Your task to perform on an android device: Open ESPN.com Image 0: 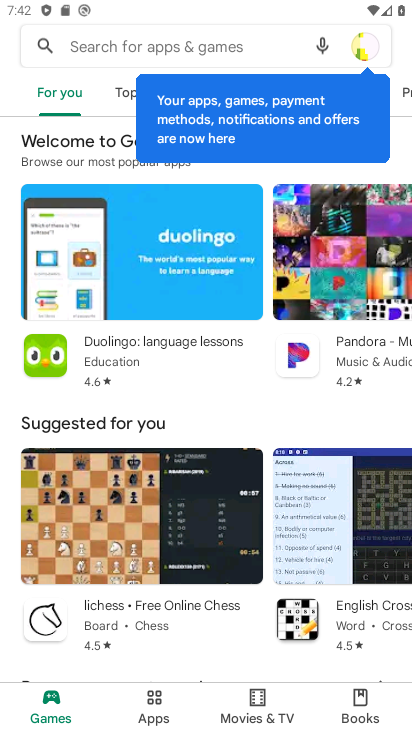
Step 0: press home button
Your task to perform on an android device: Open ESPN.com Image 1: 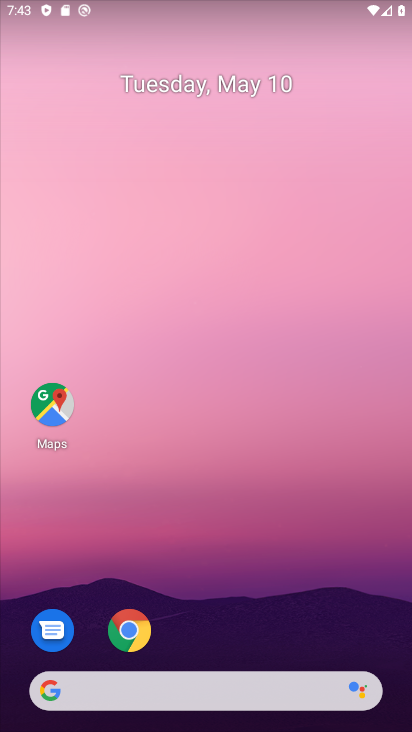
Step 1: click (104, 698)
Your task to perform on an android device: Open ESPN.com Image 2: 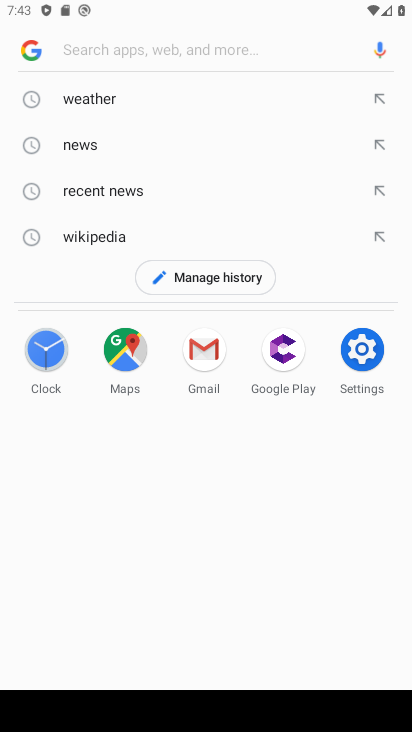
Step 2: type "espn.com"
Your task to perform on an android device: Open ESPN.com Image 3: 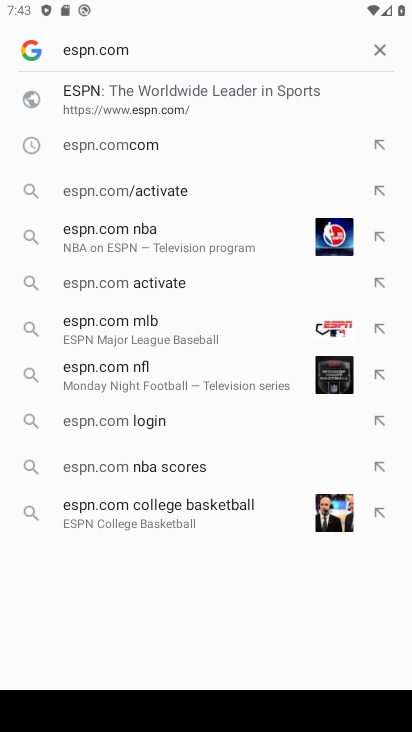
Step 3: click (190, 91)
Your task to perform on an android device: Open ESPN.com Image 4: 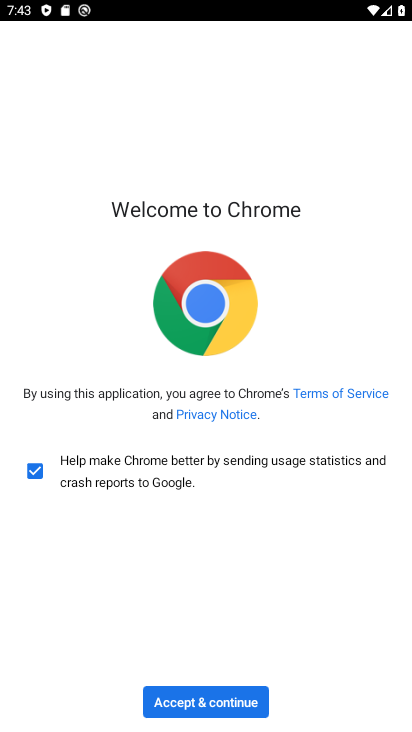
Step 4: click (173, 706)
Your task to perform on an android device: Open ESPN.com Image 5: 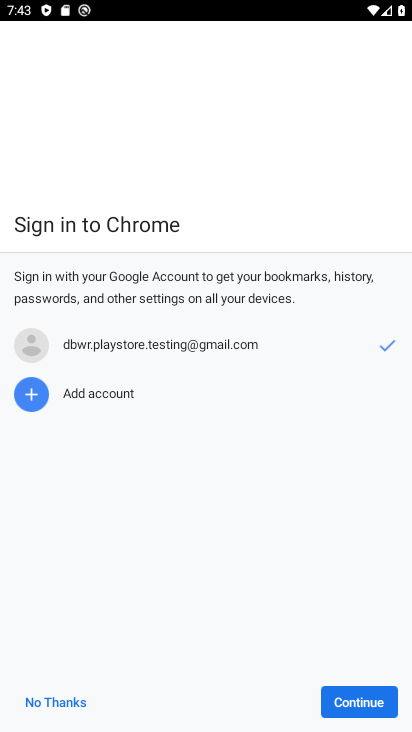
Step 5: click (360, 703)
Your task to perform on an android device: Open ESPN.com Image 6: 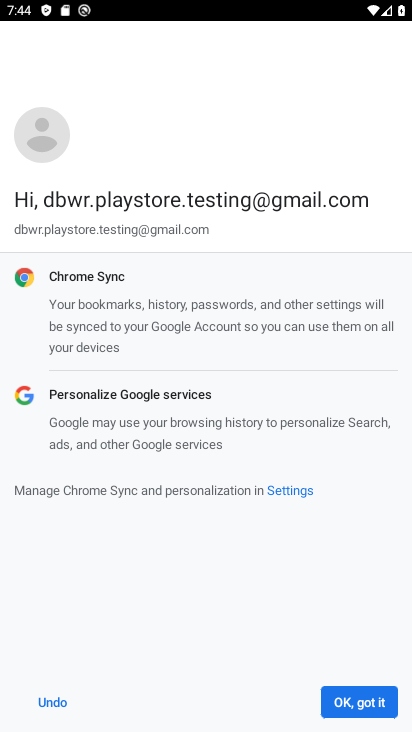
Step 6: click (361, 702)
Your task to perform on an android device: Open ESPN.com Image 7: 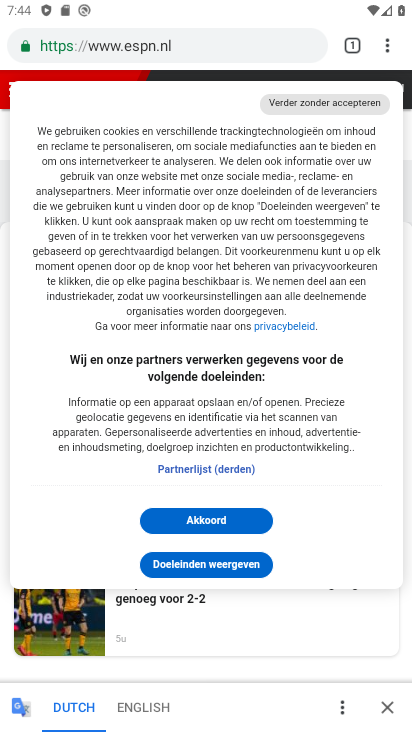
Step 7: task complete